Your task to perform on an android device: turn on showing notifications on the lock screen Image 0: 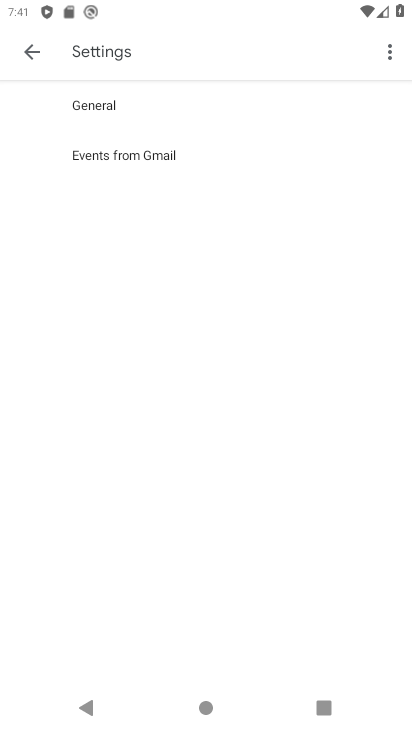
Step 0: press back button
Your task to perform on an android device: turn on showing notifications on the lock screen Image 1: 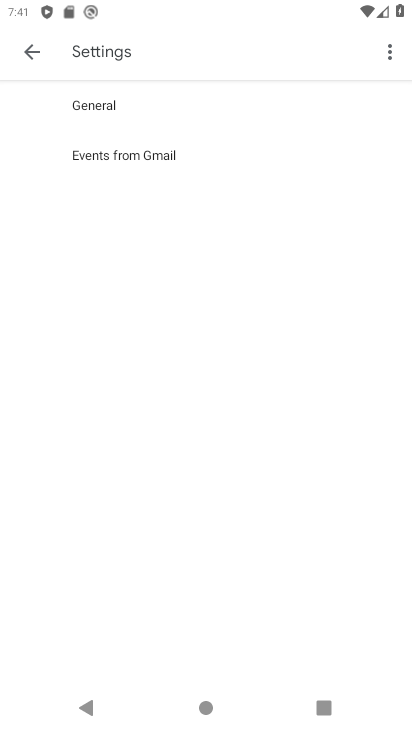
Step 1: press back button
Your task to perform on an android device: turn on showing notifications on the lock screen Image 2: 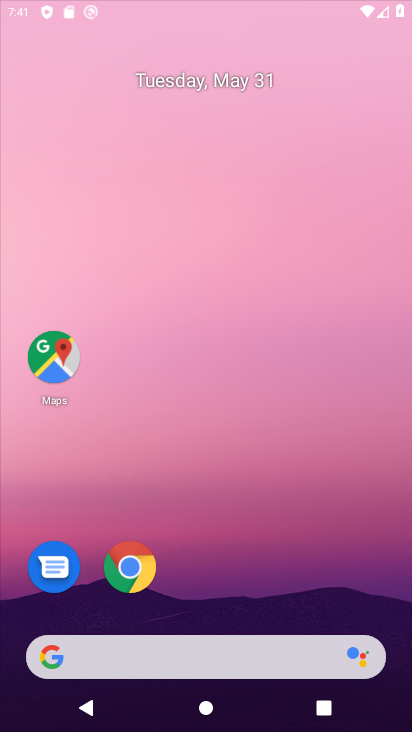
Step 2: press back button
Your task to perform on an android device: turn on showing notifications on the lock screen Image 3: 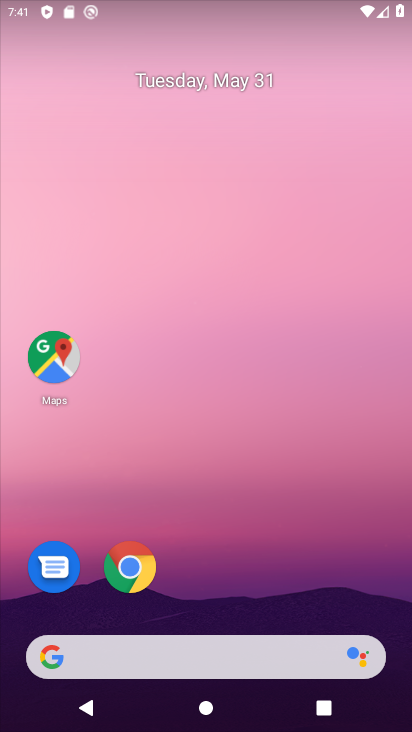
Step 3: drag from (230, 696) to (189, 98)
Your task to perform on an android device: turn on showing notifications on the lock screen Image 4: 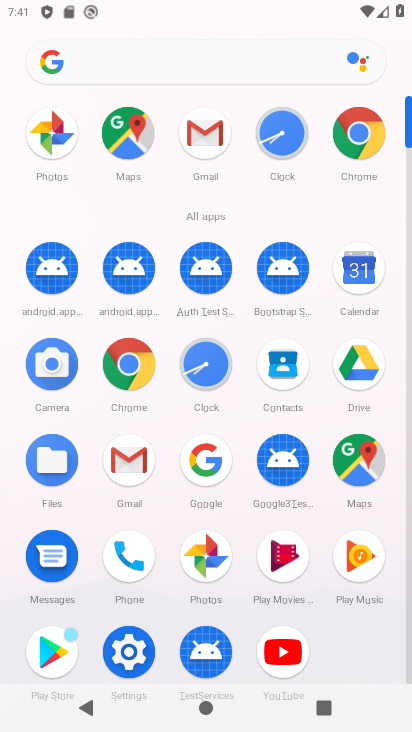
Step 4: click (117, 641)
Your task to perform on an android device: turn on showing notifications on the lock screen Image 5: 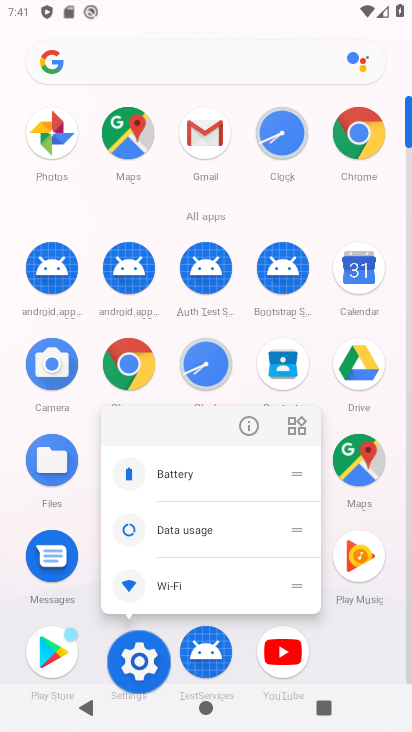
Step 5: click (128, 651)
Your task to perform on an android device: turn on showing notifications on the lock screen Image 6: 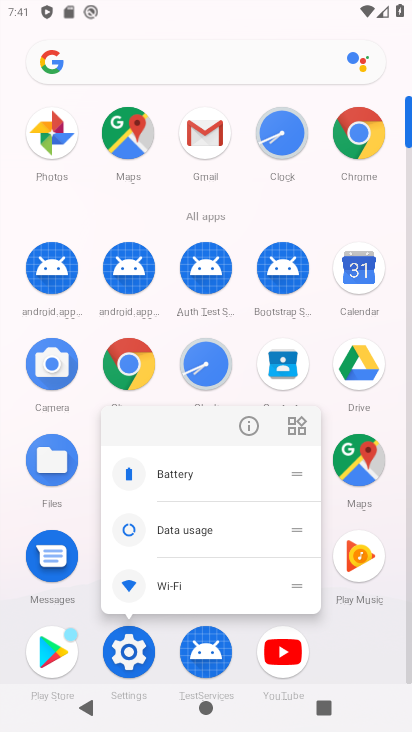
Step 6: click (129, 651)
Your task to perform on an android device: turn on showing notifications on the lock screen Image 7: 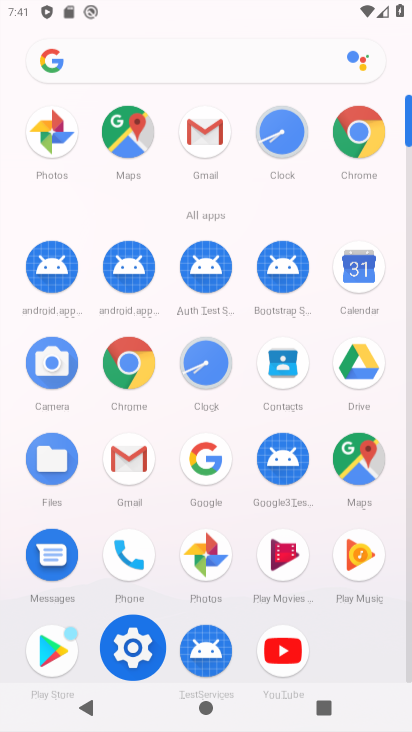
Step 7: click (139, 639)
Your task to perform on an android device: turn on showing notifications on the lock screen Image 8: 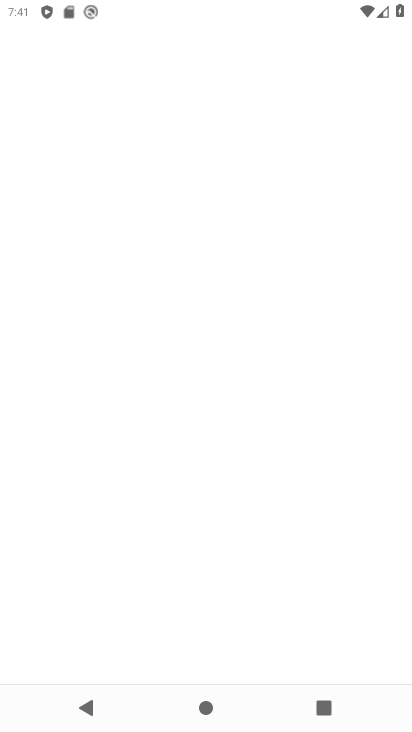
Step 8: click (139, 646)
Your task to perform on an android device: turn on showing notifications on the lock screen Image 9: 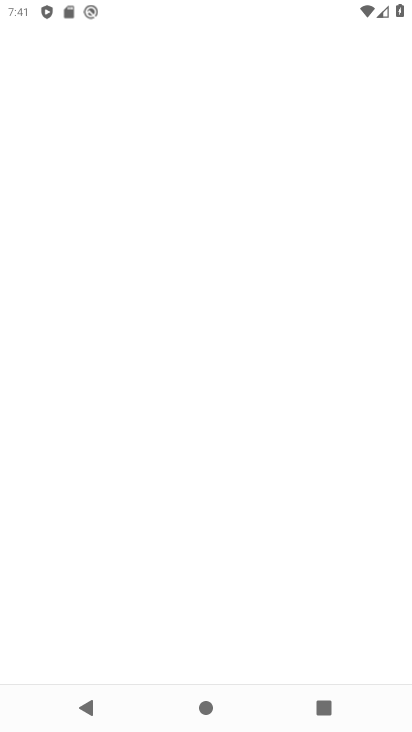
Step 9: click (139, 646)
Your task to perform on an android device: turn on showing notifications on the lock screen Image 10: 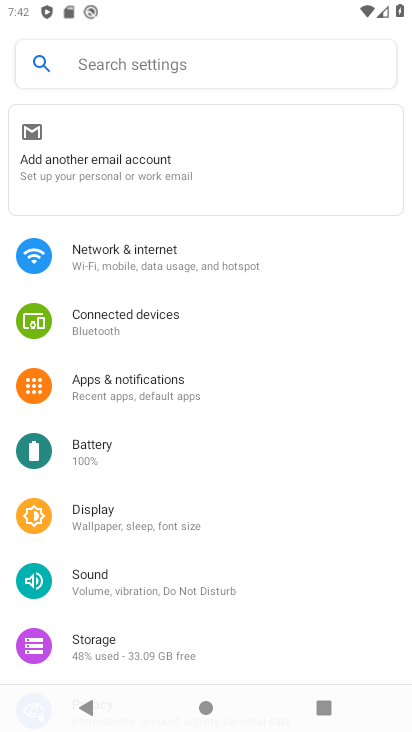
Step 10: click (112, 385)
Your task to perform on an android device: turn on showing notifications on the lock screen Image 11: 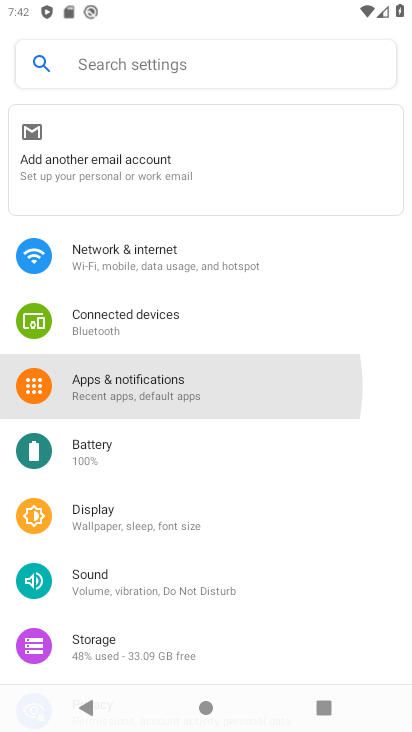
Step 11: click (112, 385)
Your task to perform on an android device: turn on showing notifications on the lock screen Image 12: 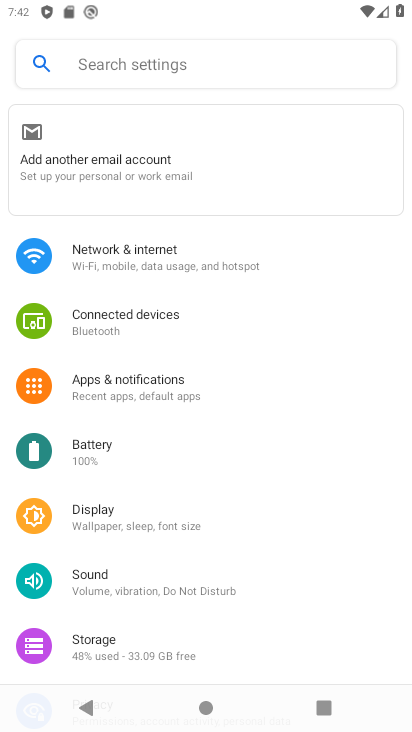
Step 12: click (113, 387)
Your task to perform on an android device: turn on showing notifications on the lock screen Image 13: 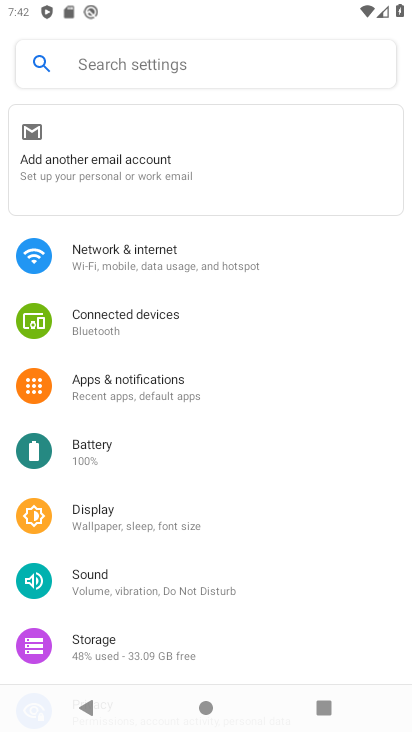
Step 13: click (114, 387)
Your task to perform on an android device: turn on showing notifications on the lock screen Image 14: 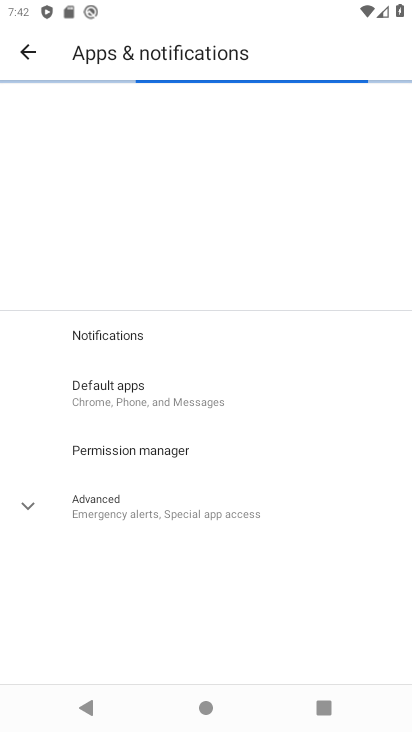
Step 14: click (123, 386)
Your task to perform on an android device: turn on showing notifications on the lock screen Image 15: 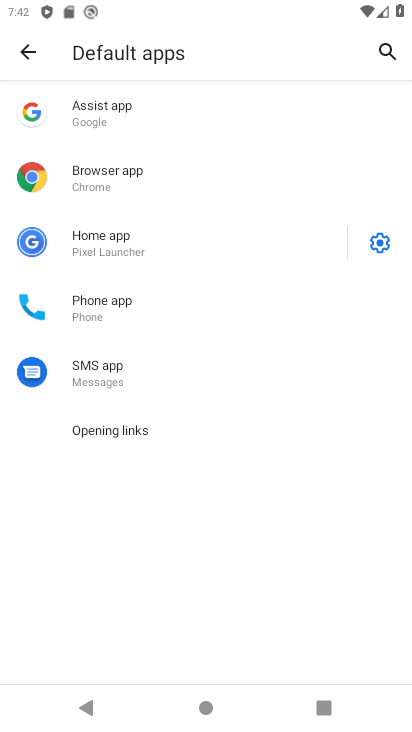
Step 15: click (27, 54)
Your task to perform on an android device: turn on showing notifications on the lock screen Image 16: 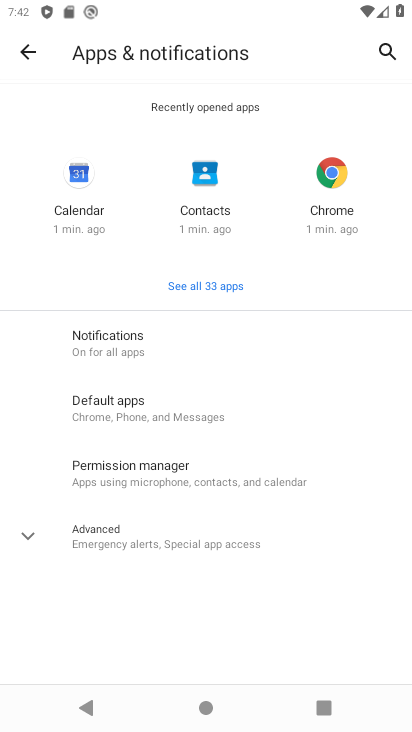
Step 16: click (103, 334)
Your task to perform on an android device: turn on showing notifications on the lock screen Image 17: 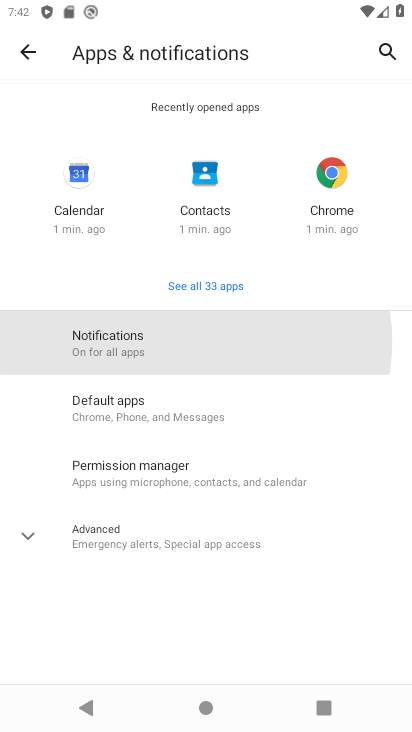
Step 17: click (105, 333)
Your task to perform on an android device: turn on showing notifications on the lock screen Image 18: 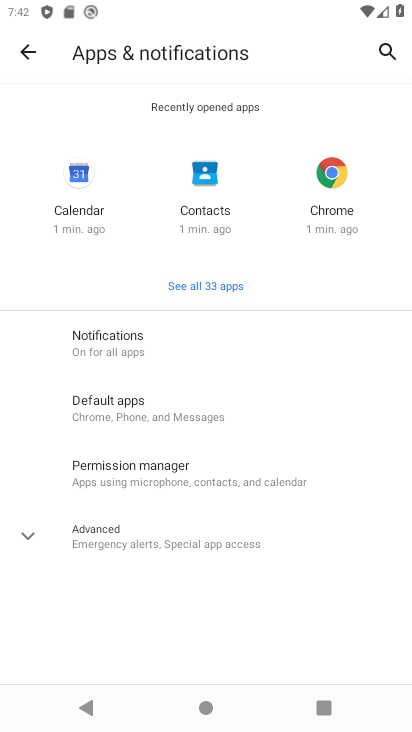
Step 18: click (108, 341)
Your task to perform on an android device: turn on showing notifications on the lock screen Image 19: 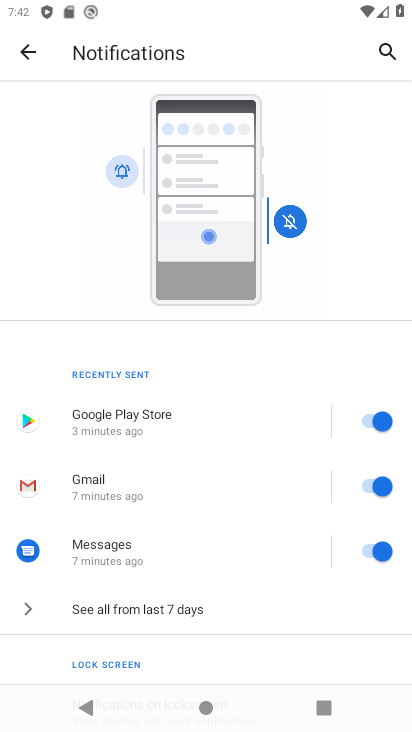
Step 19: drag from (131, 523) to (139, 153)
Your task to perform on an android device: turn on showing notifications on the lock screen Image 20: 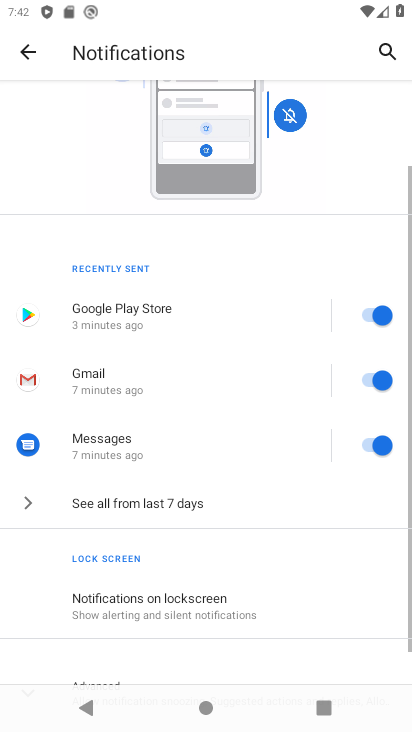
Step 20: drag from (198, 441) to (173, 114)
Your task to perform on an android device: turn on showing notifications on the lock screen Image 21: 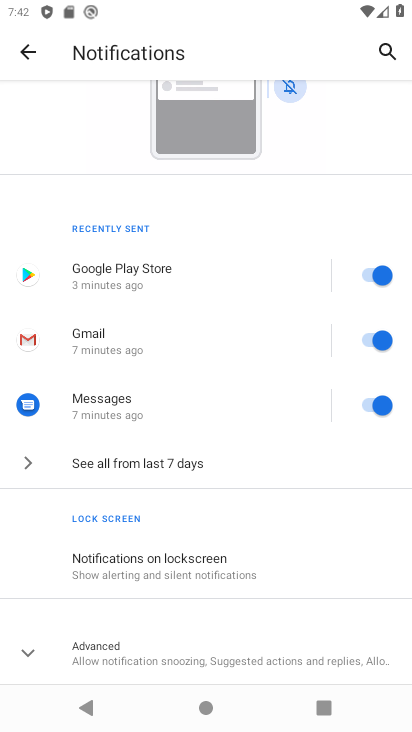
Step 21: click (128, 561)
Your task to perform on an android device: turn on showing notifications on the lock screen Image 22: 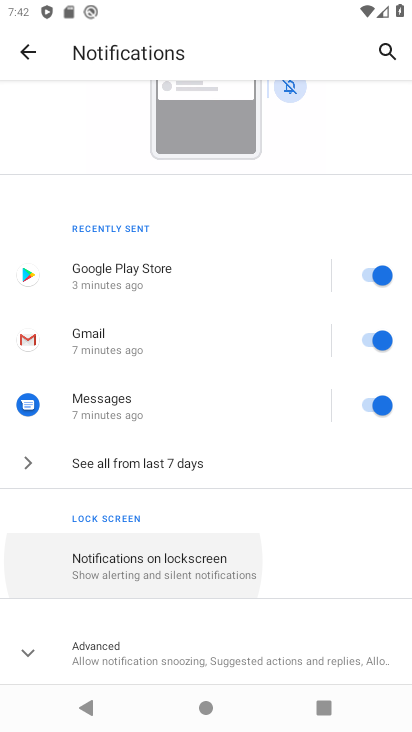
Step 22: click (128, 561)
Your task to perform on an android device: turn on showing notifications on the lock screen Image 23: 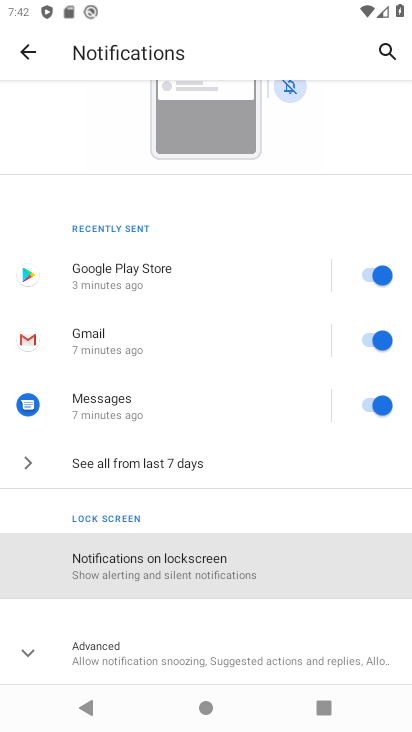
Step 23: click (128, 561)
Your task to perform on an android device: turn on showing notifications on the lock screen Image 24: 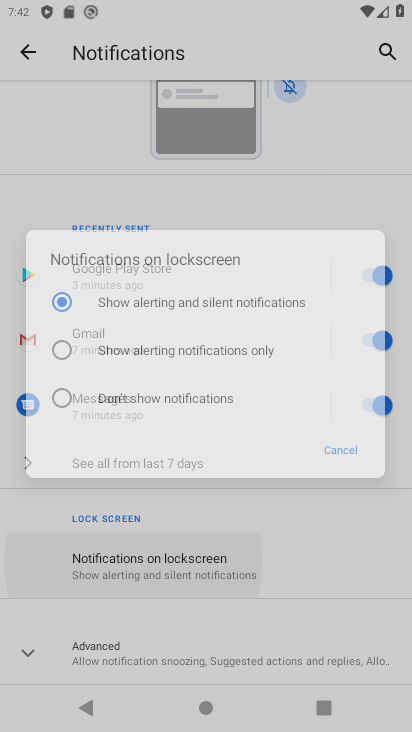
Step 24: click (129, 561)
Your task to perform on an android device: turn on showing notifications on the lock screen Image 25: 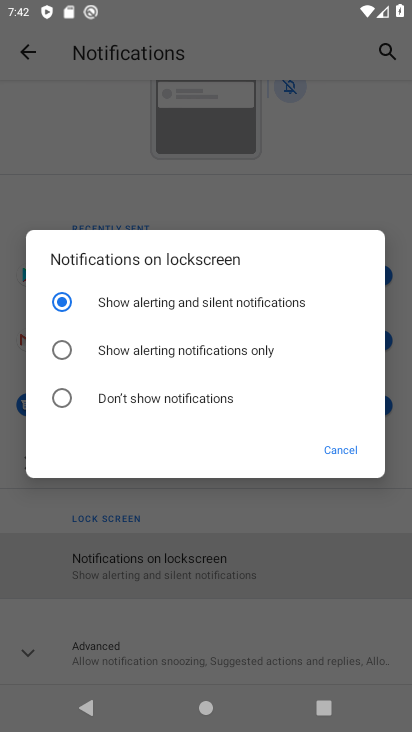
Step 25: click (132, 561)
Your task to perform on an android device: turn on showing notifications on the lock screen Image 26: 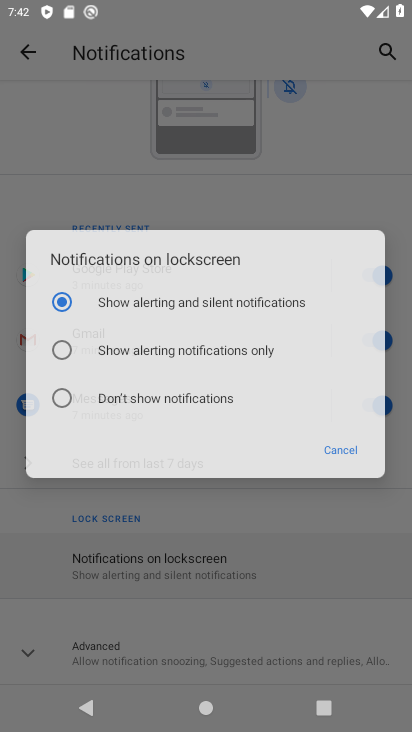
Step 26: click (132, 561)
Your task to perform on an android device: turn on showing notifications on the lock screen Image 27: 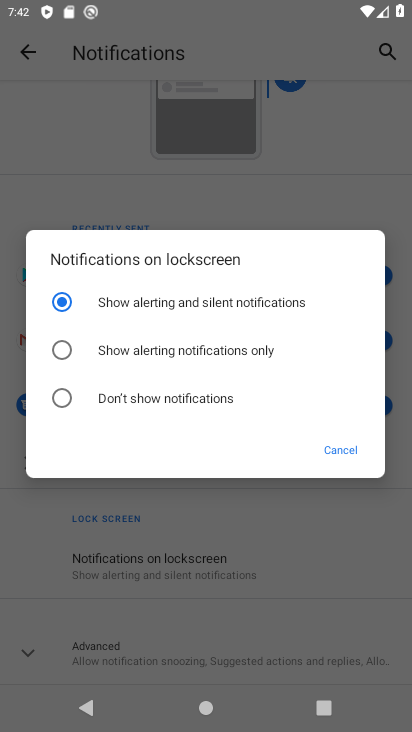
Step 27: click (346, 451)
Your task to perform on an android device: turn on showing notifications on the lock screen Image 28: 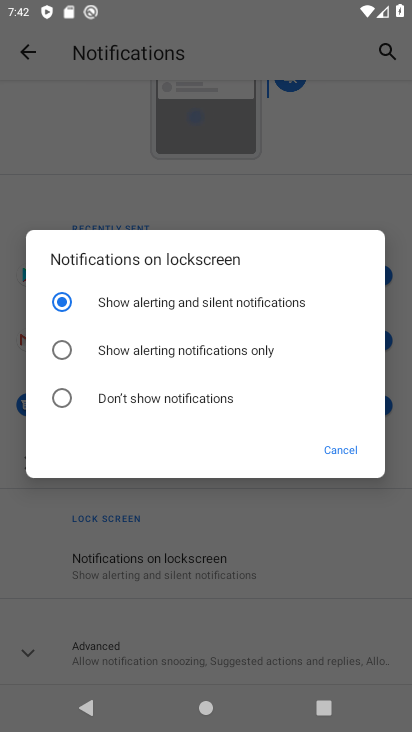
Step 28: click (346, 451)
Your task to perform on an android device: turn on showing notifications on the lock screen Image 29: 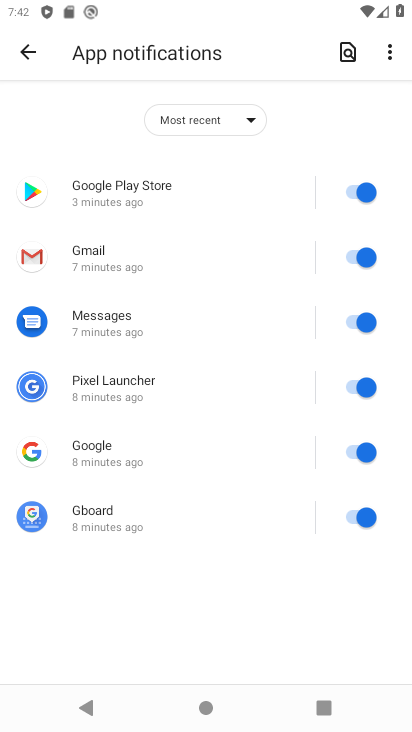
Step 29: task complete